Your task to perform on an android device: turn on priority inbox in the gmail app Image 0: 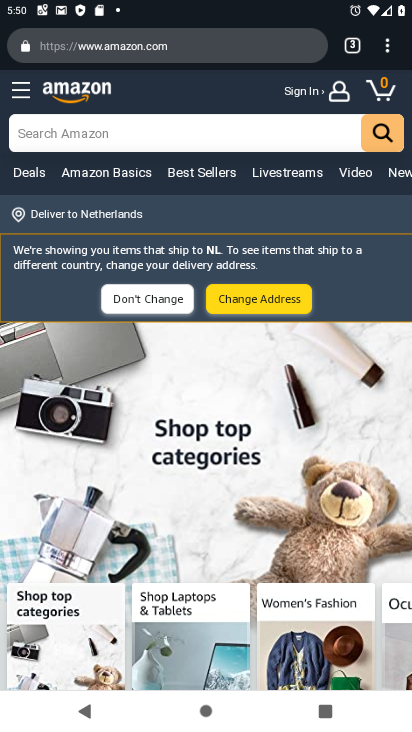
Step 0: press home button
Your task to perform on an android device: turn on priority inbox in the gmail app Image 1: 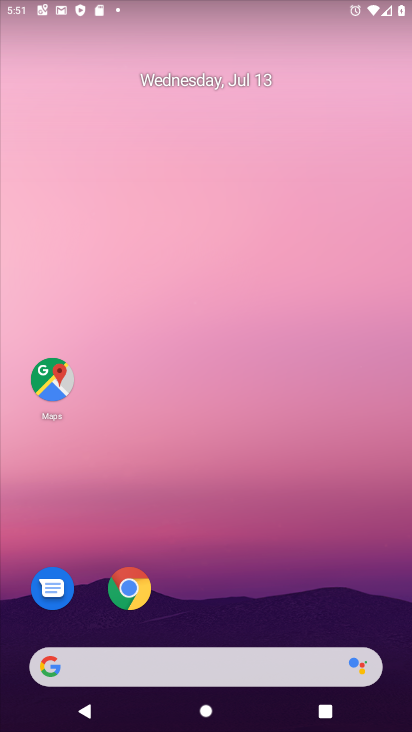
Step 1: drag from (204, 592) to (199, 196)
Your task to perform on an android device: turn on priority inbox in the gmail app Image 2: 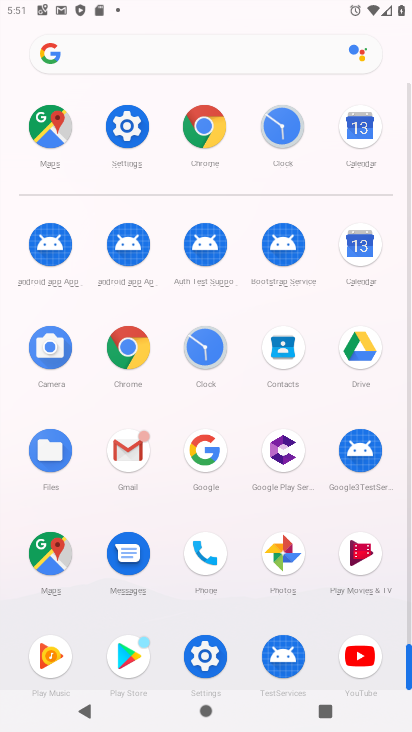
Step 2: click (129, 123)
Your task to perform on an android device: turn on priority inbox in the gmail app Image 3: 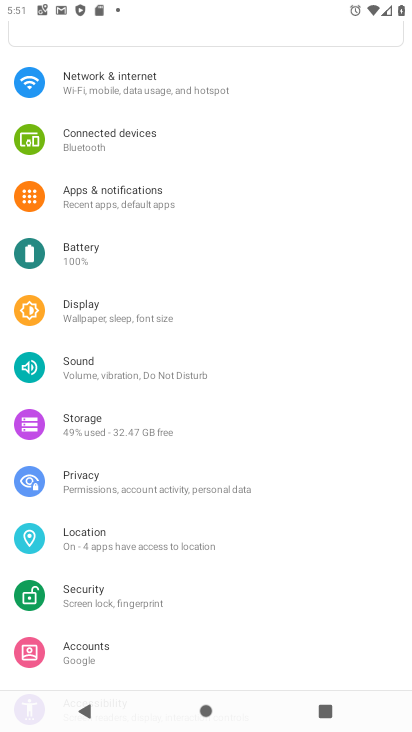
Step 3: press back button
Your task to perform on an android device: turn on priority inbox in the gmail app Image 4: 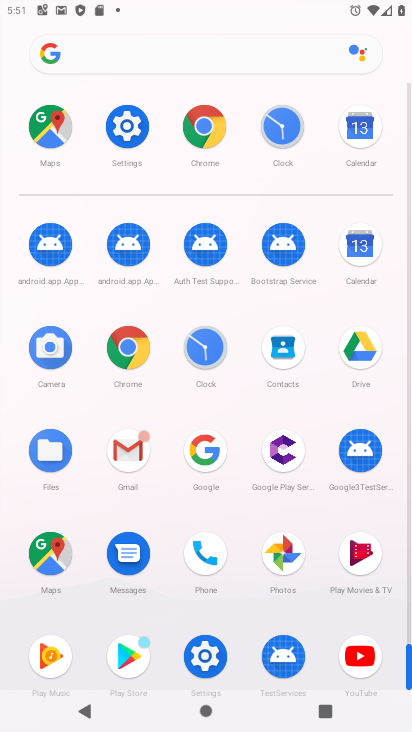
Step 4: click (132, 451)
Your task to perform on an android device: turn on priority inbox in the gmail app Image 5: 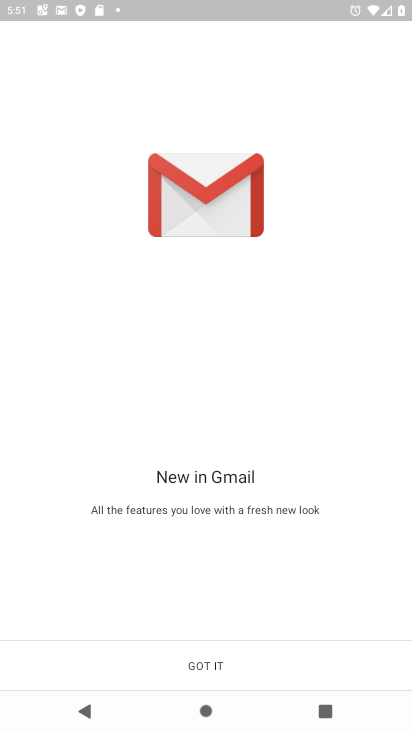
Step 5: click (210, 657)
Your task to perform on an android device: turn on priority inbox in the gmail app Image 6: 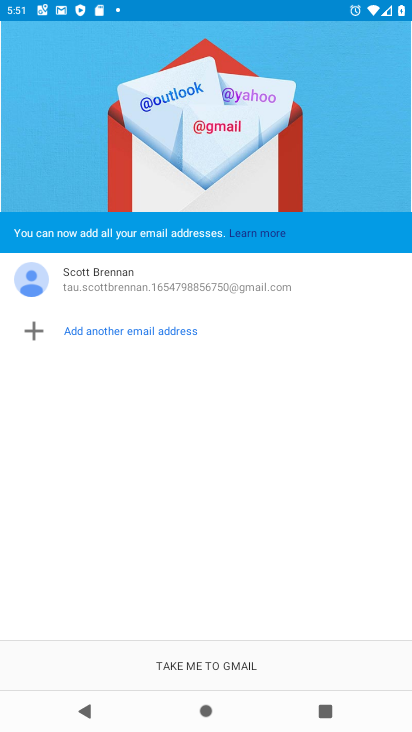
Step 6: click (210, 657)
Your task to perform on an android device: turn on priority inbox in the gmail app Image 7: 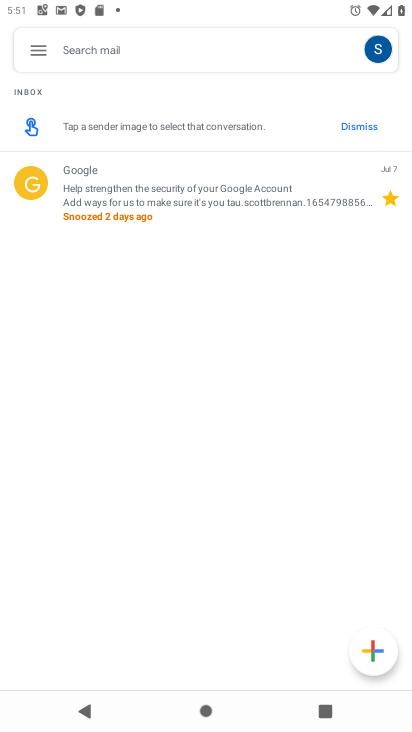
Step 7: click (36, 50)
Your task to perform on an android device: turn on priority inbox in the gmail app Image 8: 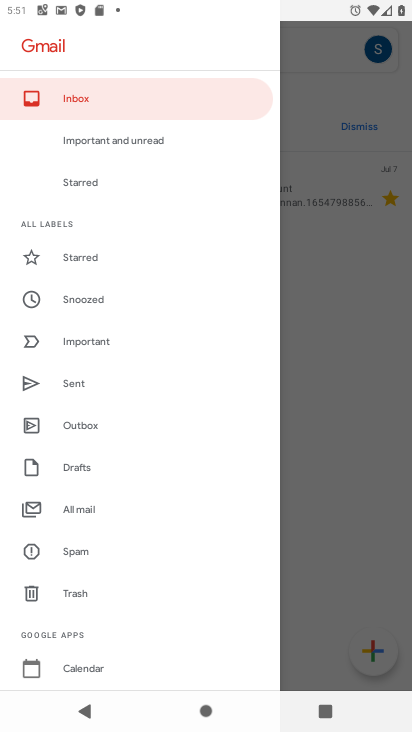
Step 8: drag from (105, 560) to (218, 60)
Your task to perform on an android device: turn on priority inbox in the gmail app Image 9: 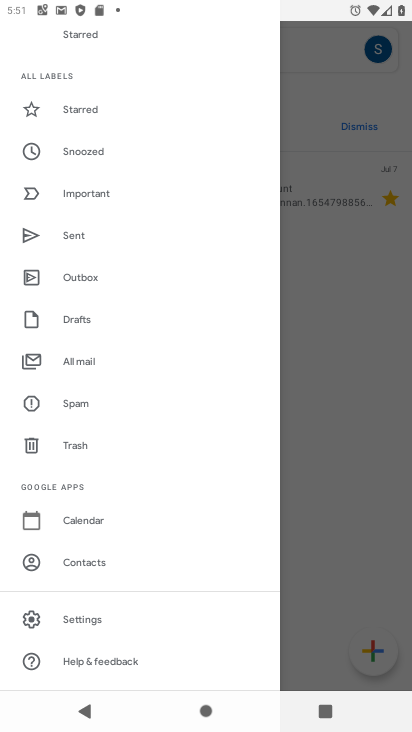
Step 9: click (81, 611)
Your task to perform on an android device: turn on priority inbox in the gmail app Image 10: 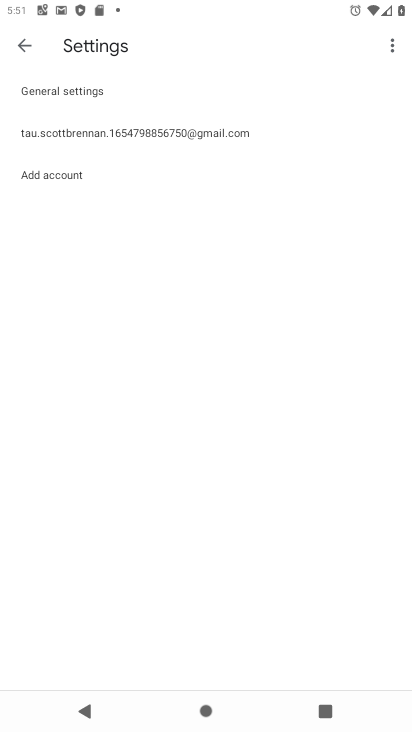
Step 10: click (137, 140)
Your task to perform on an android device: turn on priority inbox in the gmail app Image 11: 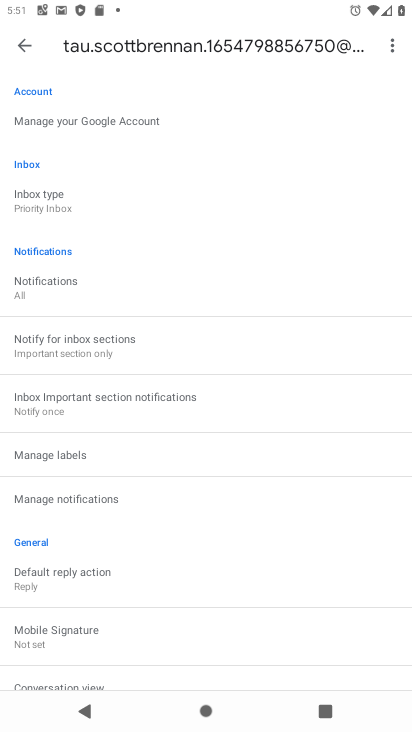
Step 11: click (65, 209)
Your task to perform on an android device: turn on priority inbox in the gmail app Image 12: 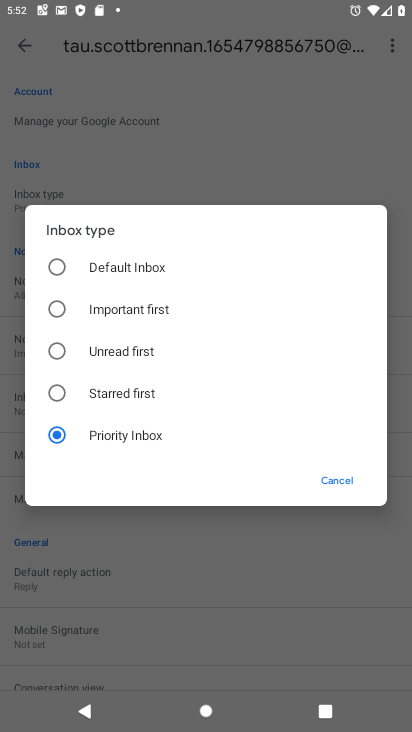
Step 12: task complete